Your task to perform on an android device: visit the assistant section in the google photos Image 0: 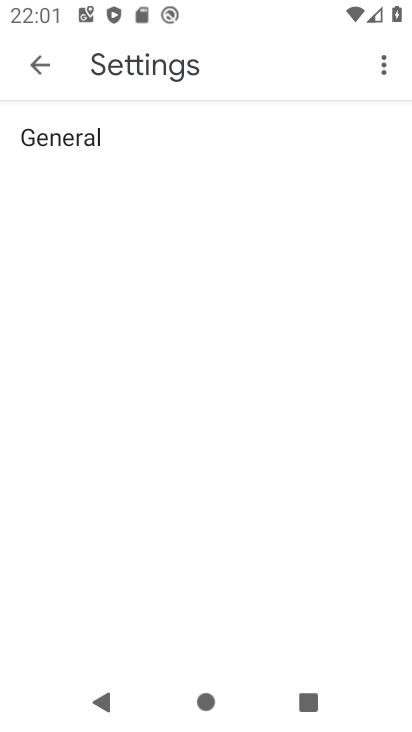
Step 0: press home button
Your task to perform on an android device: visit the assistant section in the google photos Image 1: 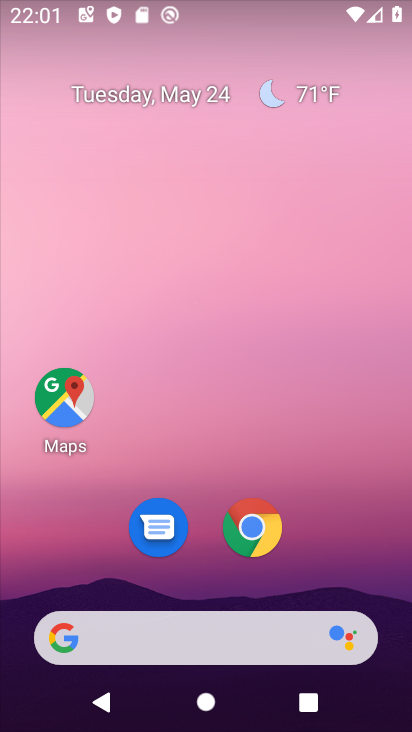
Step 1: drag from (208, 582) to (217, 30)
Your task to perform on an android device: visit the assistant section in the google photos Image 2: 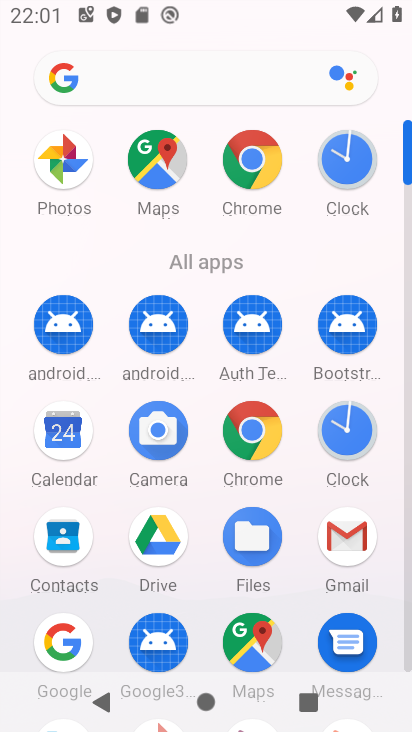
Step 2: drag from (189, 594) to (176, 163)
Your task to perform on an android device: visit the assistant section in the google photos Image 3: 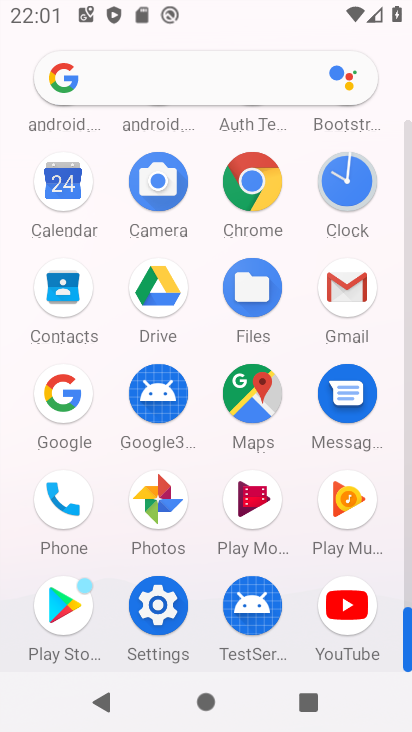
Step 3: click (167, 604)
Your task to perform on an android device: visit the assistant section in the google photos Image 4: 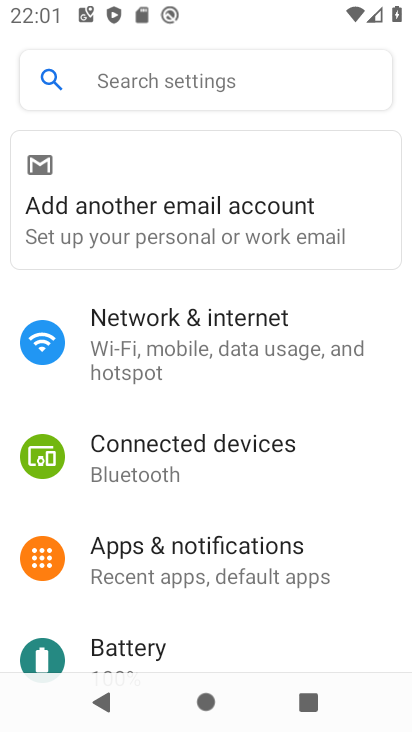
Step 4: press home button
Your task to perform on an android device: visit the assistant section in the google photos Image 5: 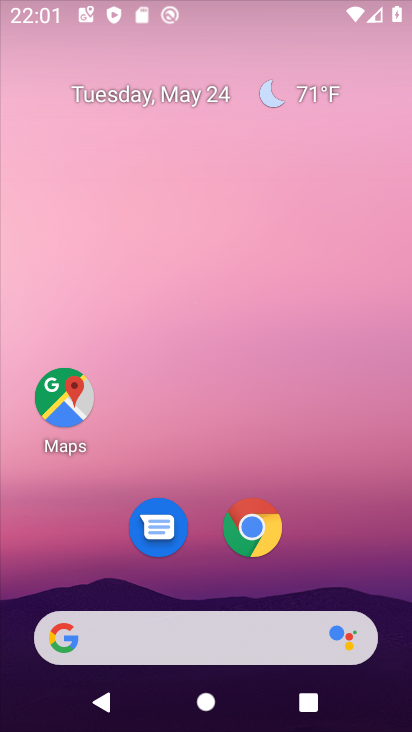
Step 5: drag from (210, 484) to (212, 84)
Your task to perform on an android device: visit the assistant section in the google photos Image 6: 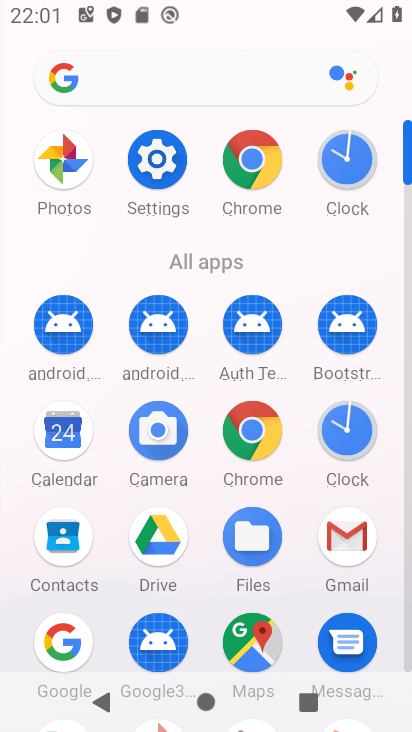
Step 6: click (60, 157)
Your task to perform on an android device: visit the assistant section in the google photos Image 7: 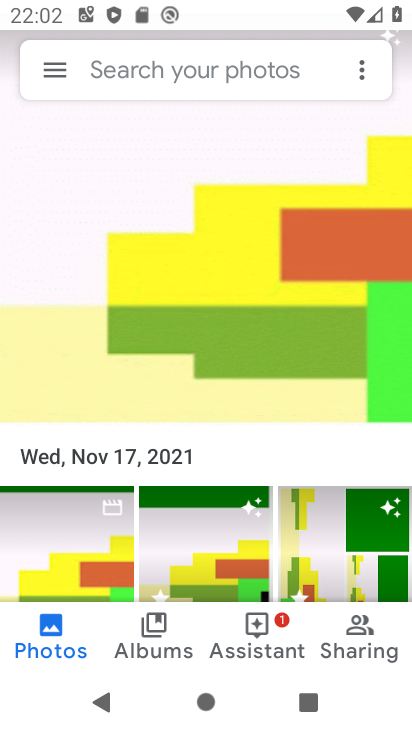
Step 7: click (247, 629)
Your task to perform on an android device: visit the assistant section in the google photos Image 8: 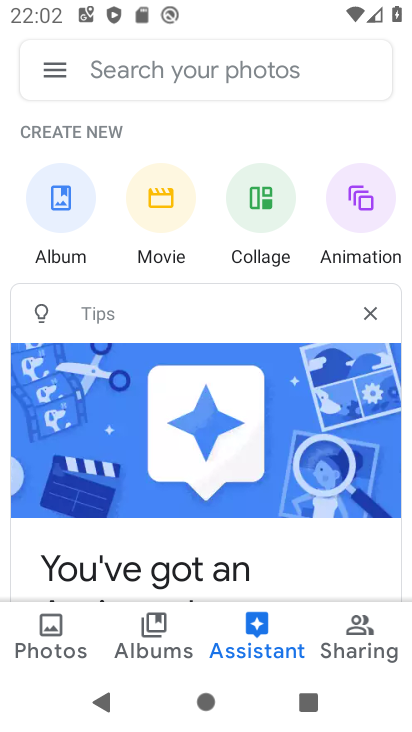
Step 8: task complete